Your task to perform on an android device: Show the shopping cart on ebay.com. Search for "beats solo 3" on ebay.com, select the first entry, and add it to the cart. Image 0: 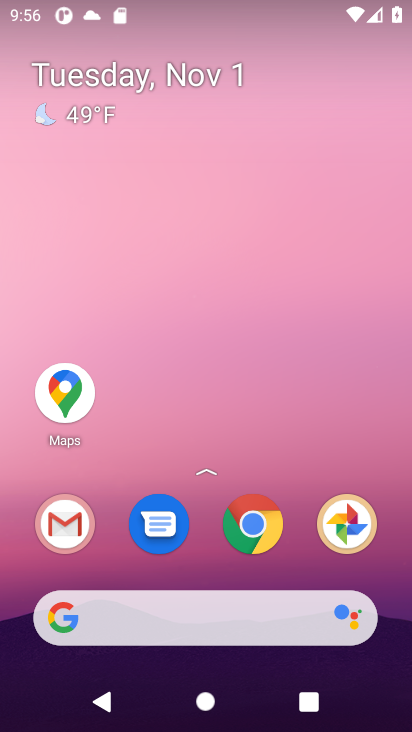
Step 0: press home button
Your task to perform on an android device: Show the shopping cart on ebay.com. Search for "beats solo 3" on ebay.com, select the first entry, and add it to the cart. Image 1: 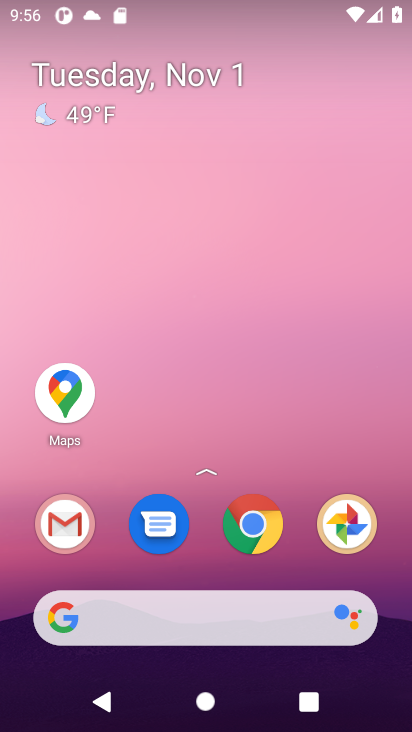
Step 1: click (97, 612)
Your task to perform on an android device: Show the shopping cart on ebay.com. Search for "beats solo 3" on ebay.com, select the first entry, and add it to the cart. Image 2: 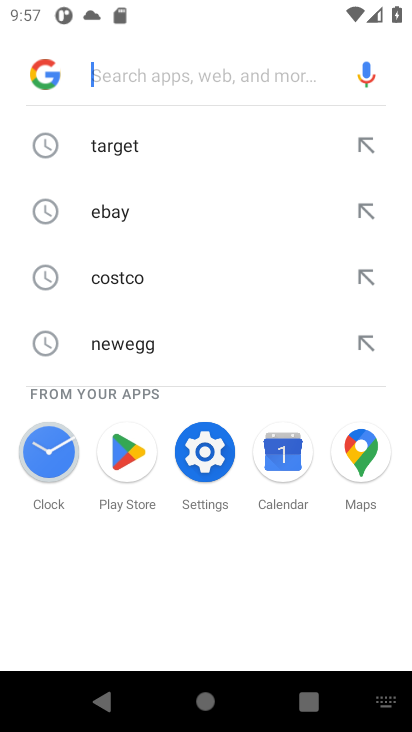
Step 2: type "ebay.com"
Your task to perform on an android device: Show the shopping cart on ebay.com. Search for "beats solo 3" on ebay.com, select the first entry, and add it to the cart. Image 3: 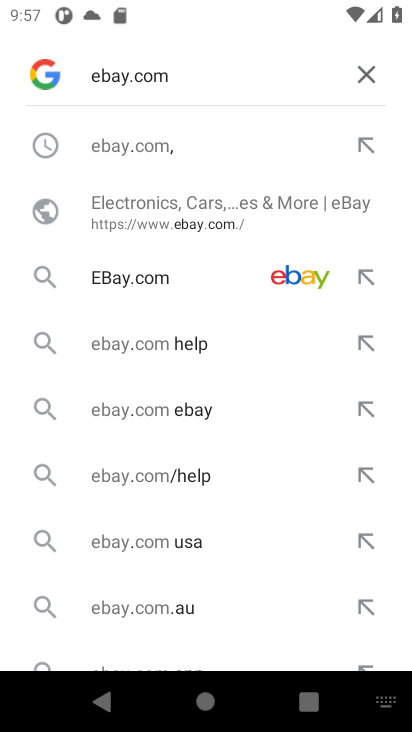
Step 3: press enter
Your task to perform on an android device: Show the shopping cart on ebay.com. Search for "beats solo 3" on ebay.com, select the first entry, and add it to the cart. Image 4: 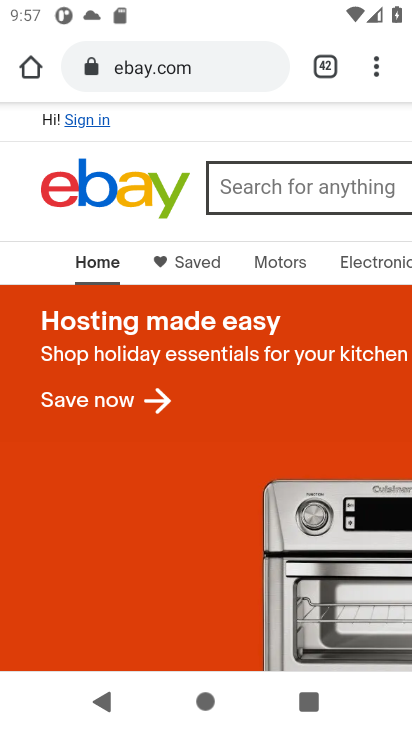
Step 4: drag from (135, 354) to (14, 301)
Your task to perform on an android device: Show the shopping cart on ebay.com. Search for "beats solo 3" on ebay.com, select the first entry, and add it to the cart. Image 5: 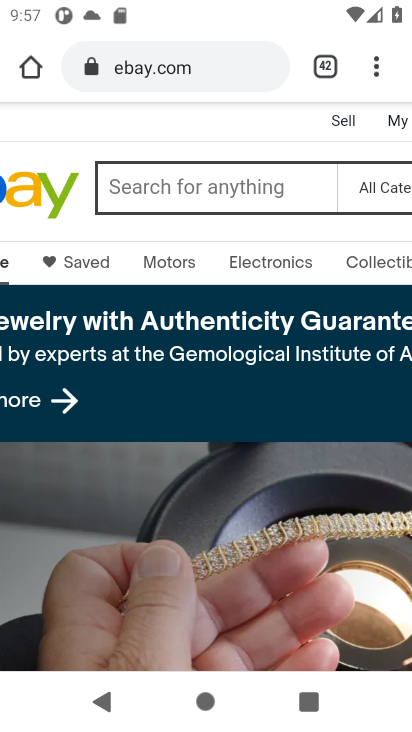
Step 5: drag from (347, 227) to (4, 222)
Your task to perform on an android device: Show the shopping cart on ebay.com. Search for "beats solo 3" on ebay.com, select the first entry, and add it to the cart. Image 6: 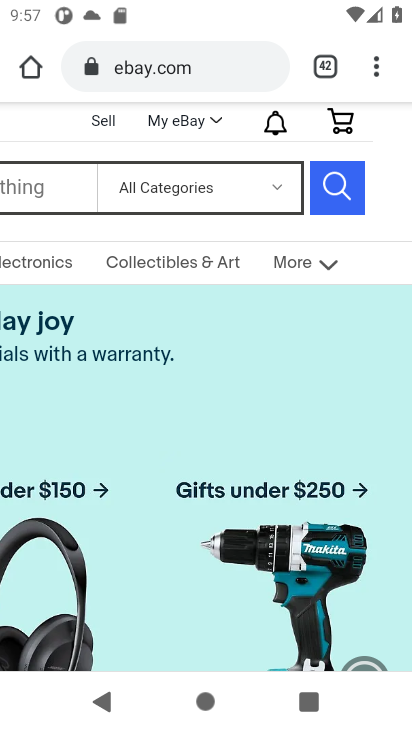
Step 6: click (344, 116)
Your task to perform on an android device: Show the shopping cart on ebay.com. Search for "beats solo 3" on ebay.com, select the first entry, and add it to the cart. Image 7: 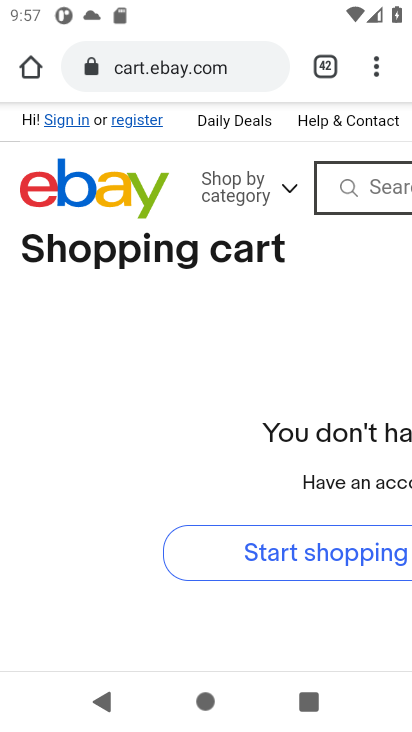
Step 7: click (360, 181)
Your task to perform on an android device: Show the shopping cart on ebay.com. Search for "beats solo 3" on ebay.com, select the first entry, and add it to the cart. Image 8: 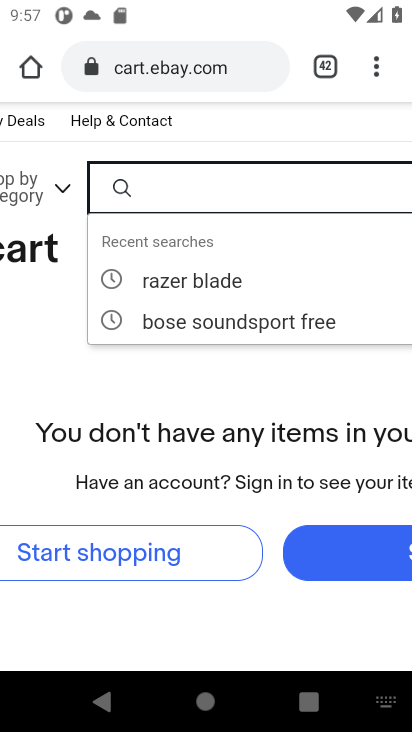
Step 8: type "beats solo 3"
Your task to perform on an android device: Show the shopping cart on ebay.com. Search for "beats solo 3" on ebay.com, select the first entry, and add it to the cart. Image 9: 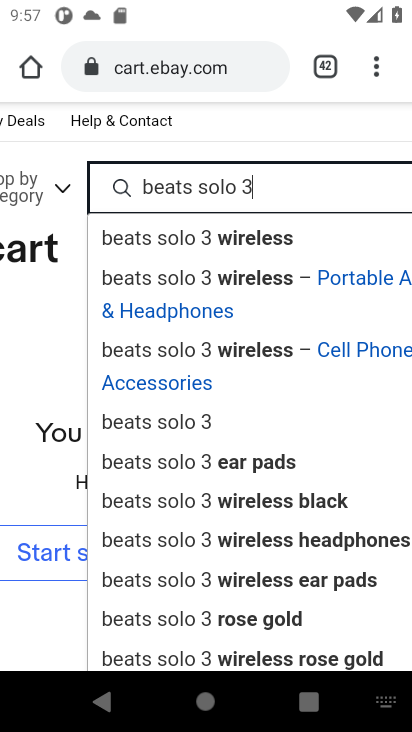
Step 9: press enter
Your task to perform on an android device: Show the shopping cart on ebay.com. Search for "beats solo 3" on ebay.com, select the first entry, and add it to the cart. Image 10: 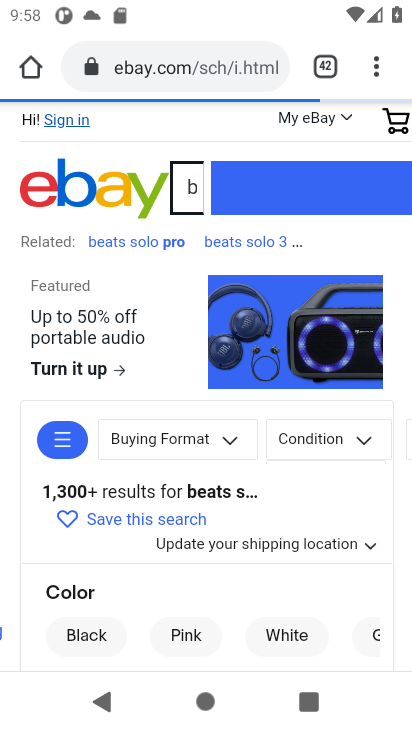
Step 10: drag from (216, 546) to (224, 261)
Your task to perform on an android device: Show the shopping cart on ebay.com. Search for "beats solo 3" on ebay.com, select the first entry, and add it to the cart. Image 11: 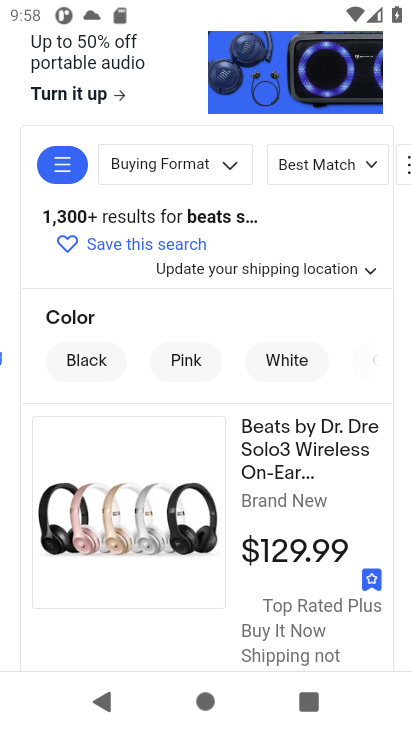
Step 11: drag from (221, 546) to (236, 335)
Your task to perform on an android device: Show the shopping cart on ebay.com. Search for "beats solo 3" on ebay.com, select the first entry, and add it to the cart. Image 12: 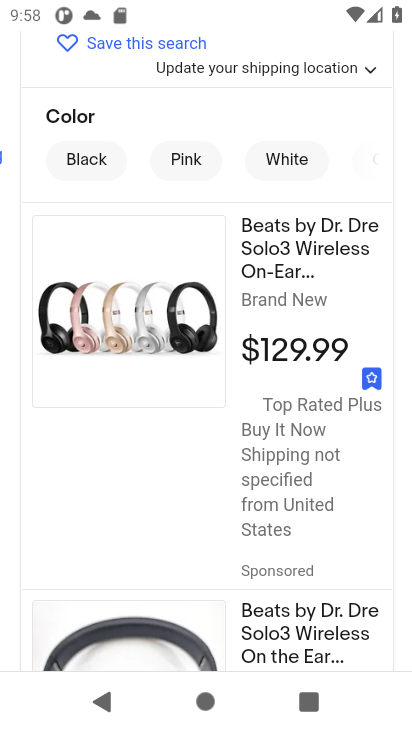
Step 12: click (268, 312)
Your task to perform on an android device: Show the shopping cart on ebay.com. Search for "beats solo 3" on ebay.com, select the first entry, and add it to the cart. Image 13: 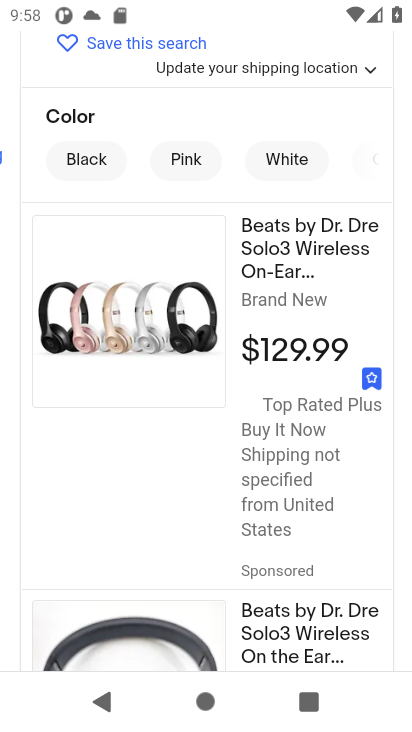
Step 13: drag from (333, 472) to (0, 423)
Your task to perform on an android device: Show the shopping cart on ebay.com. Search for "beats solo 3" on ebay.com, select the first entry, and add it to the cart. Image 14: 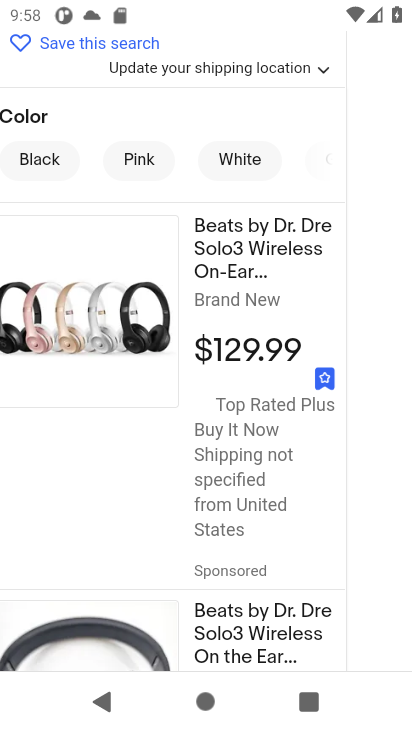
Step 14: click (228, 278)
Your task to perform on an android device: Show the shopping cart on ebay.com. Search for "beats solo 3" on ebay.com, select the first entry, and add it to the cart. Image 15: 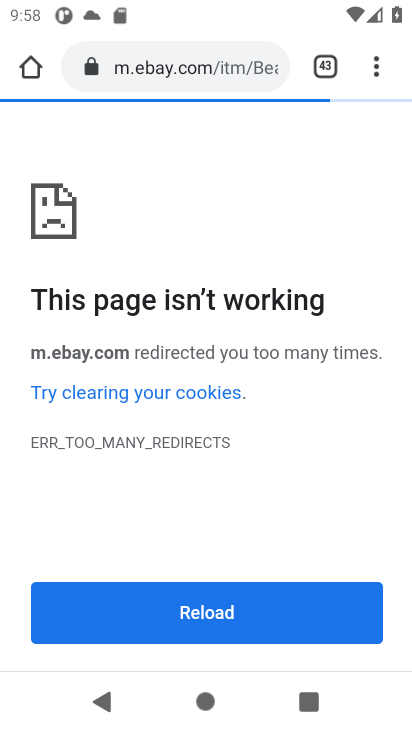
Step 15: task complete